Your task to perform on an android device: When is my next appointment? Image 0: 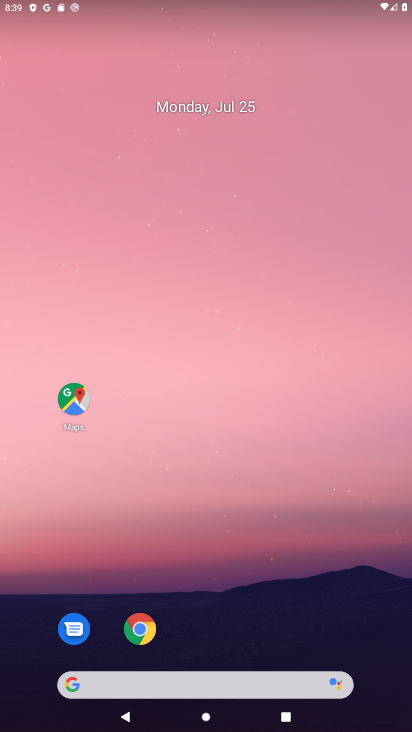
Step 0: click (208, 99)
Your task to perform on an android device: When is my next appointment? Image 1: 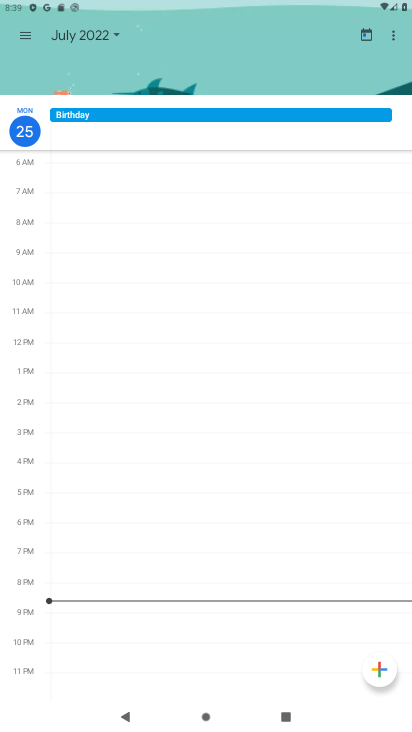
Step 1: task complete